Your task to perform on an android device: open sync settings in chrome Image 0: 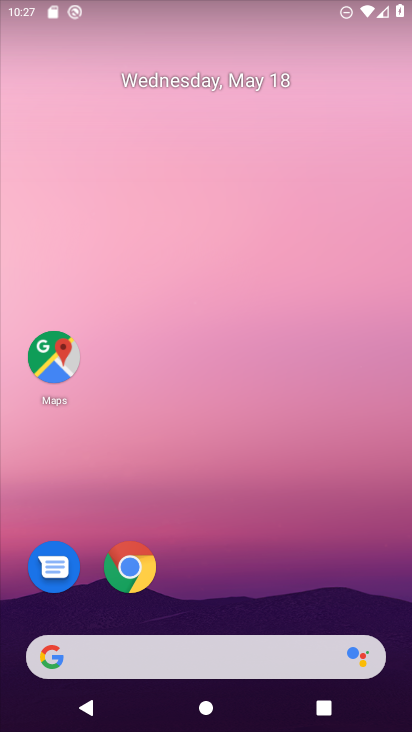
Step 0: drag from (273, 596) to (320, 172)
Your task to perform on an android device: open sync settings in chrome Image 1: 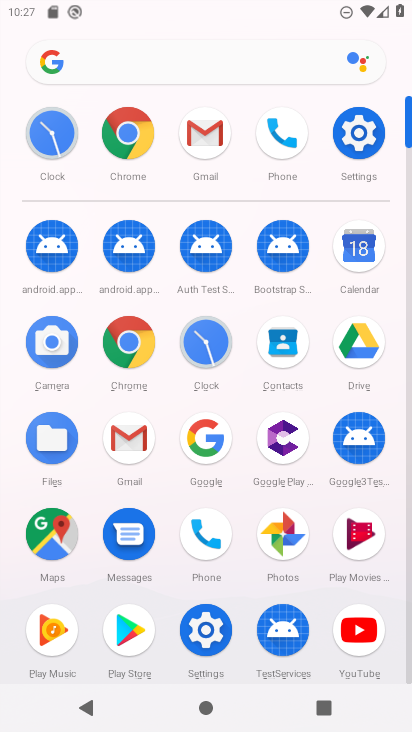
Step 1: click (130, 343)
Your task to perform on an android device: open sync settings in chrome Image 2: 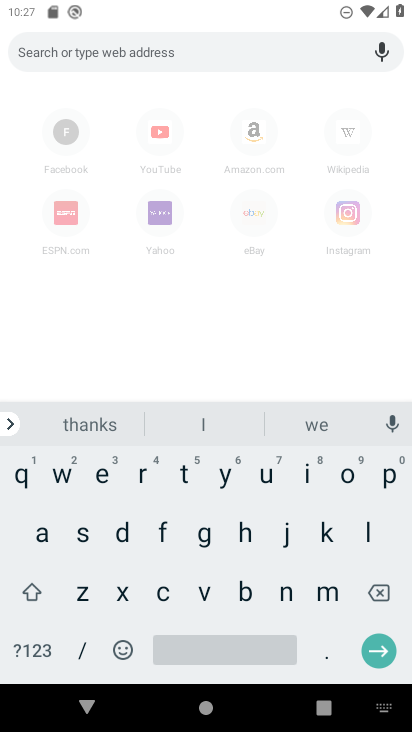
Step 2: press back button
Your task to perform on an android device: open sync settings in chrome Image 3: 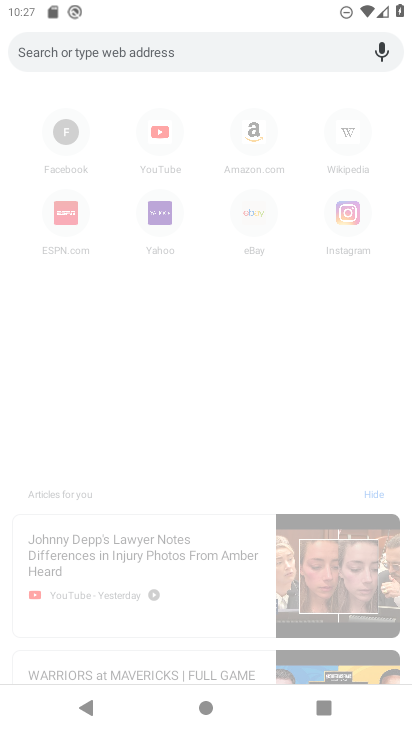
Step 3: press back button
Your task to perform on an android device: open sync settings in chrome Image 4: 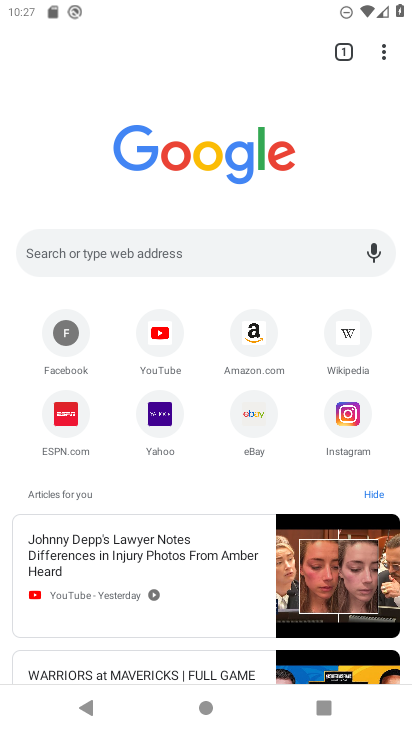
Step 4: click (389, 57)
Your task to perform on an android device: open sync settings in chrome Image 5: 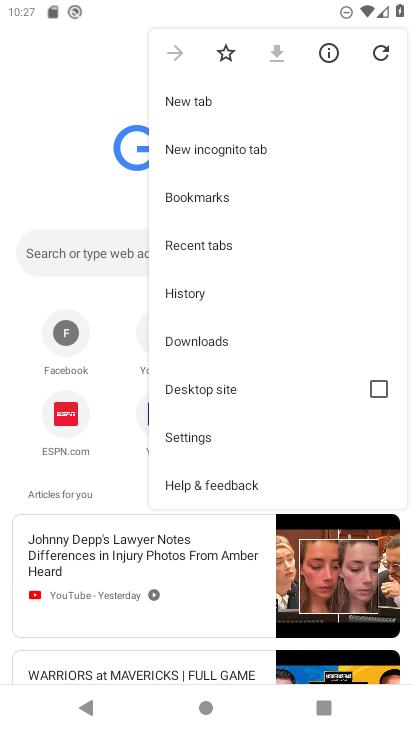
Step 5: click (185, 436)
Your task to perform on an android device: open sync settings in chrome Image 6: 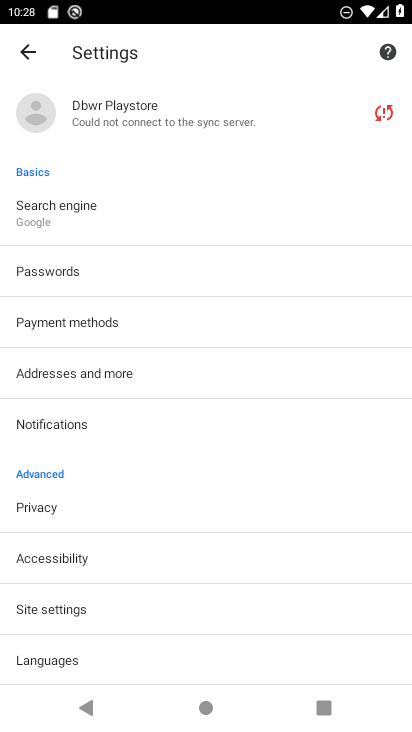
Step 6: click (29, 608)
Your task to perform on an android device: open sync settings in chrome Image 7: 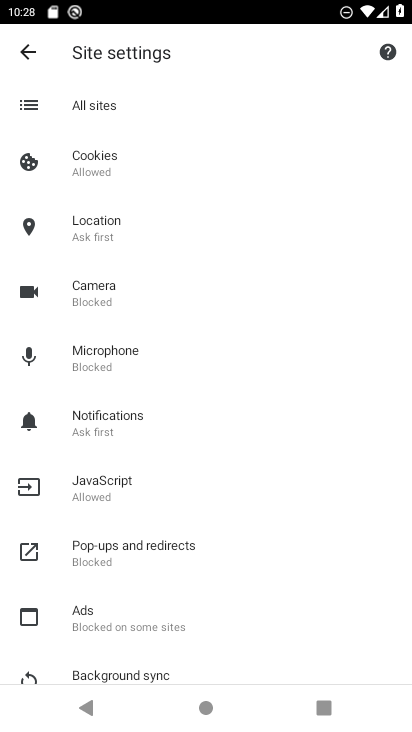
Step 7: drag from (138, 549) to (148, 443)
Your task to perform on an android device: open sync settings in chrome Image 8: 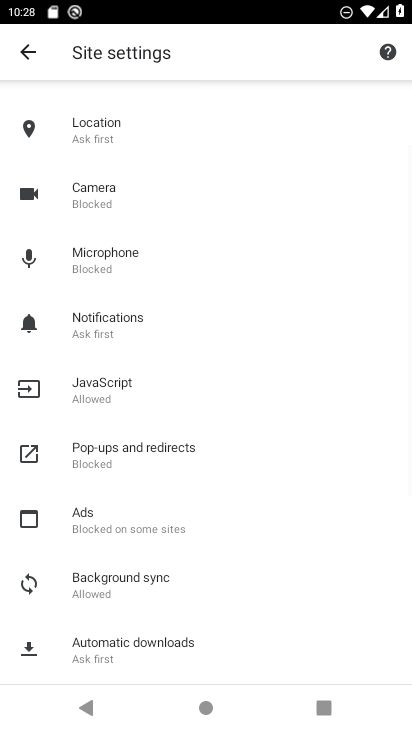
Step 8: click (122, 584)
Your task to perform on an android device: open sync settings in chrome Image 9: 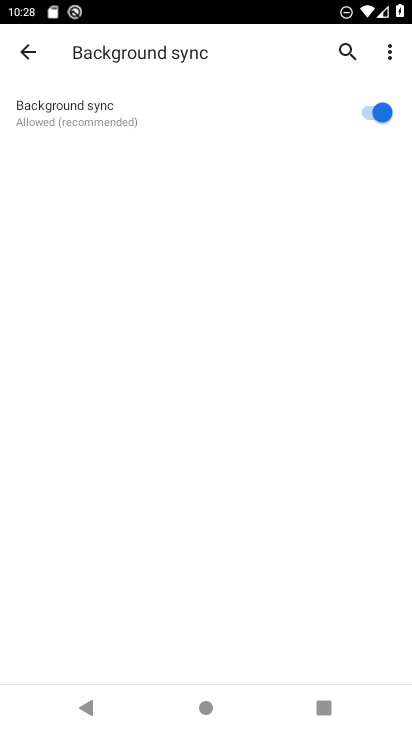
Step 9: task complete